Your task to perform on an android device: Go to Reddit.com Image 0: 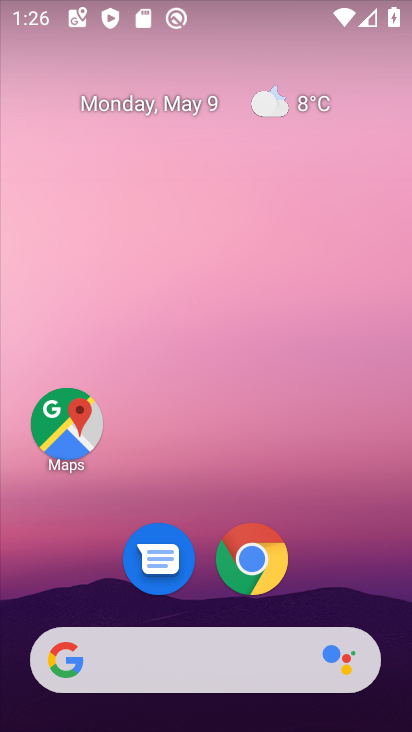
Step 0: click (255, 560)
Your task to perform on an android device: Go to Reddit.com Image 1: 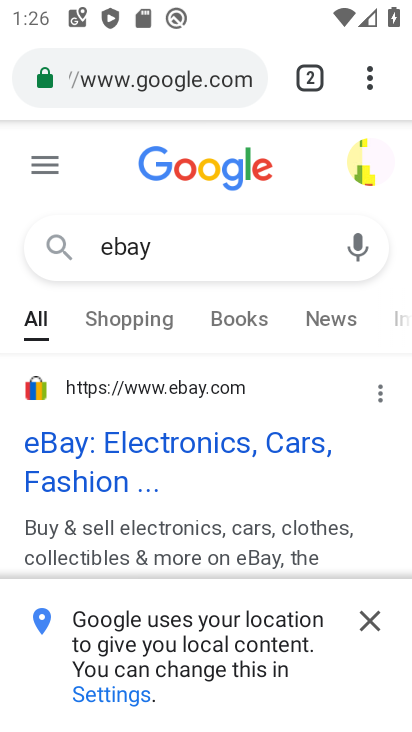
Step 1: click (365, 79)
Your task to perform on an android device: Go to Reddit.com Image 2: 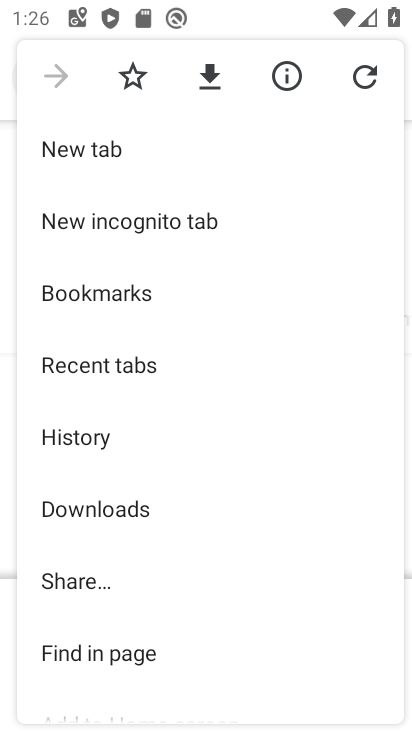
Step 2: click (81, 153)
Your task to perform on an android device: Go to Reddit.com Image 3: 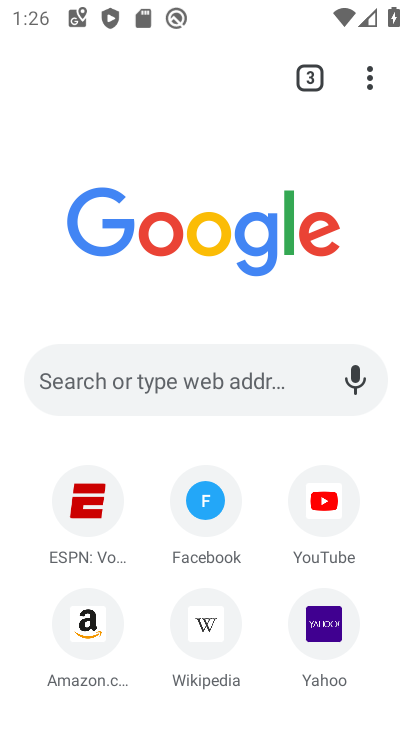
Step 3: click (194, 369)
Your task to perform on an android device: Go to Reddit.com Image 4: 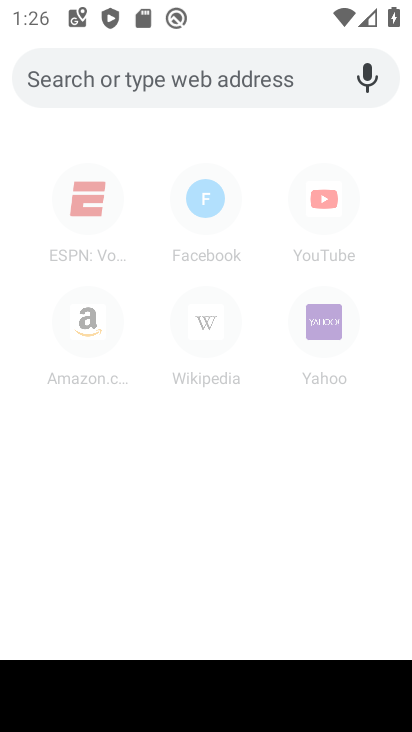
Step 4: click (141, 390)
Your task to perform on an android device: Go to Reddit.com Image 5: 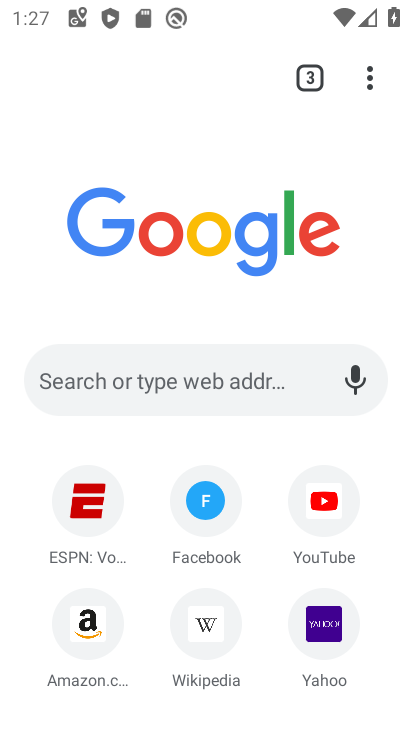
Step 5: click (136, 383)
Your task to perform on an android device: Go to Reddit.com Image 6: 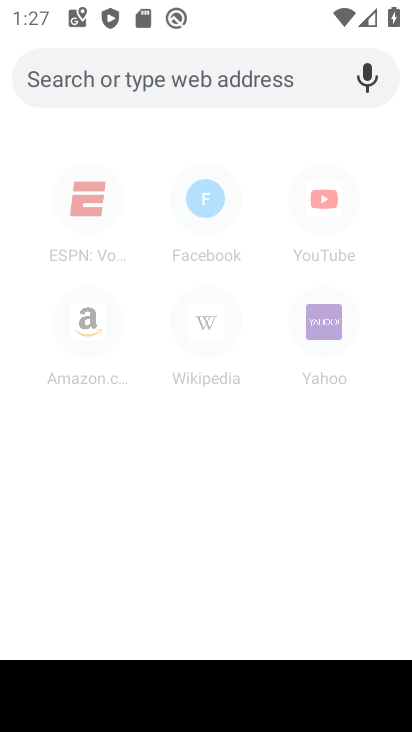
Step 6: type "reddit.com"
Your task to perform on an android device: Go to Reddit.com Image 7: 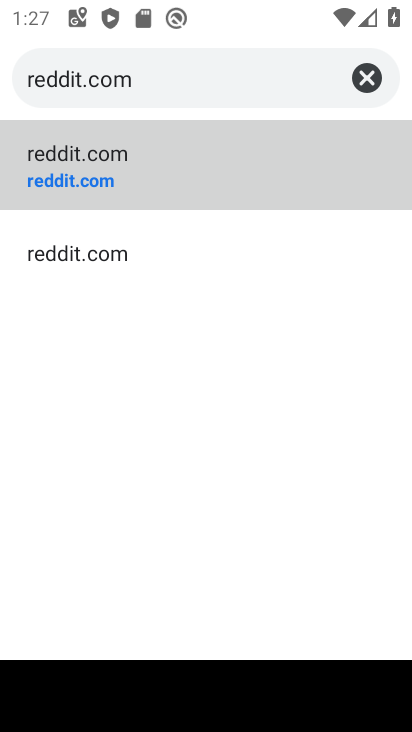
Step 7: click (107, 180)
Your task to perform on an android device: Go to Reddit.com Image 8: 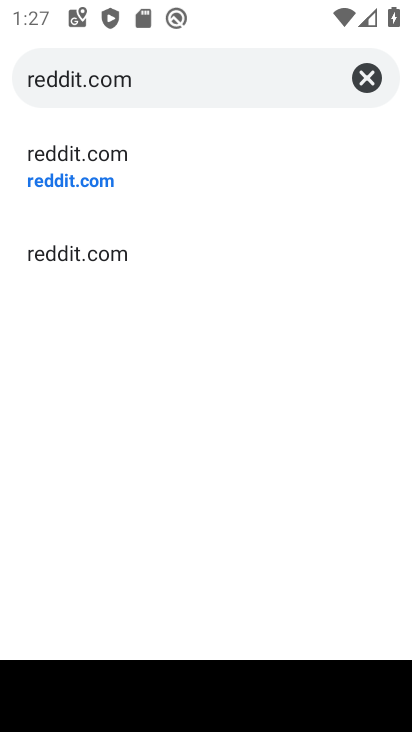
Step 8: click (91, 160)
Your task to perform on an android device: Go to Reddit.com Image 9: 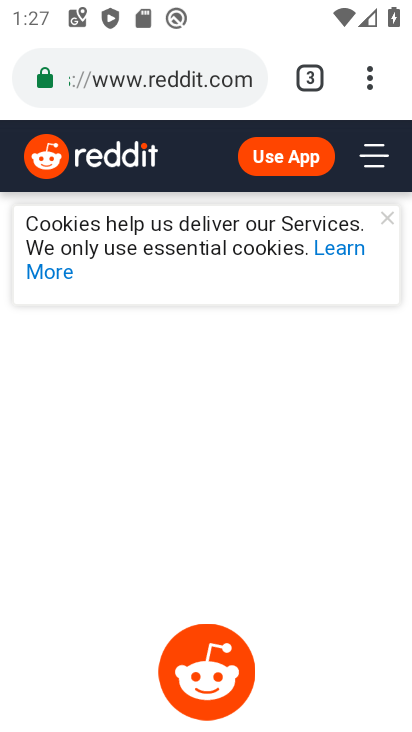
Step 9: task complete